Your task to perform on an android device: turn pop-ups on in chrome Image 0: 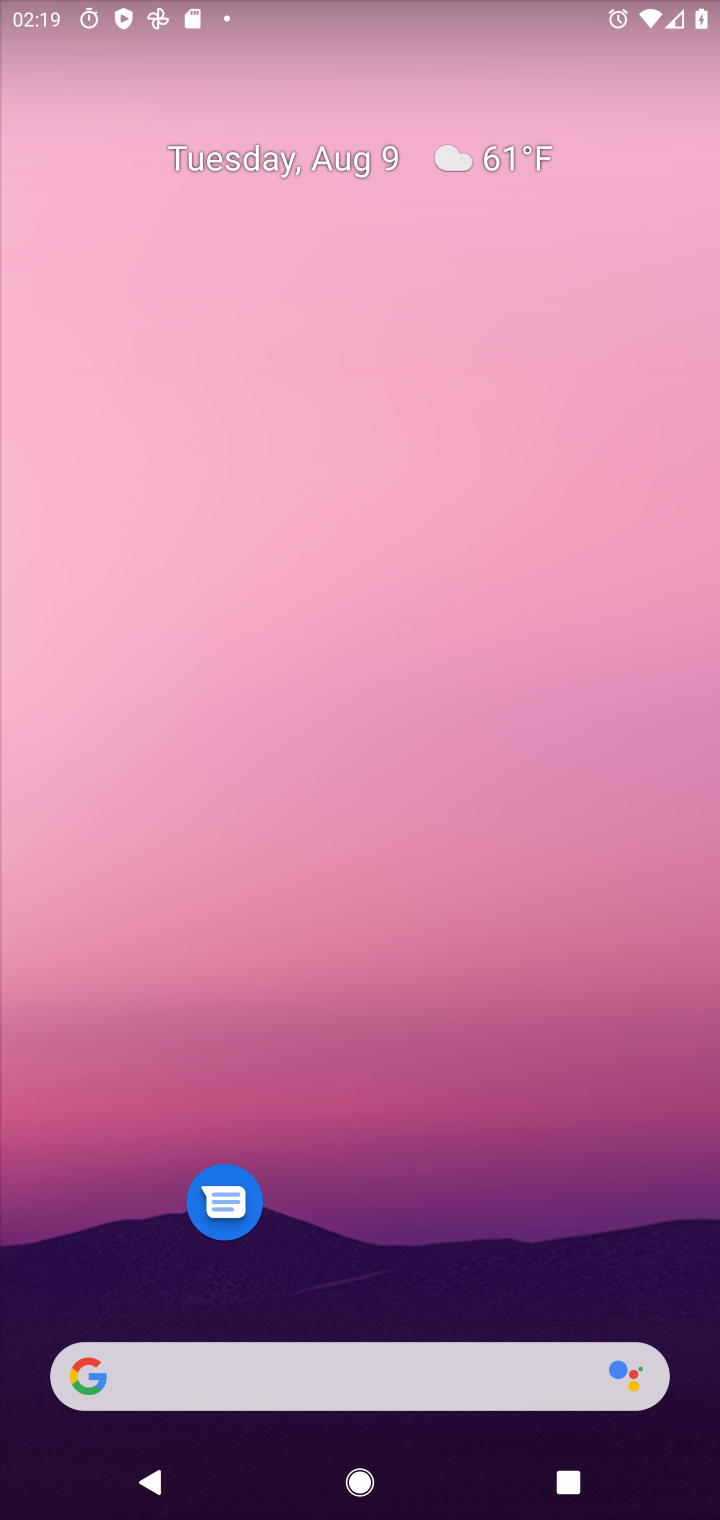
Step 0: drag from (306, 946) to (314, 109)
Your task to perform on an android device: turn pop-ups on in chrome Image 1: 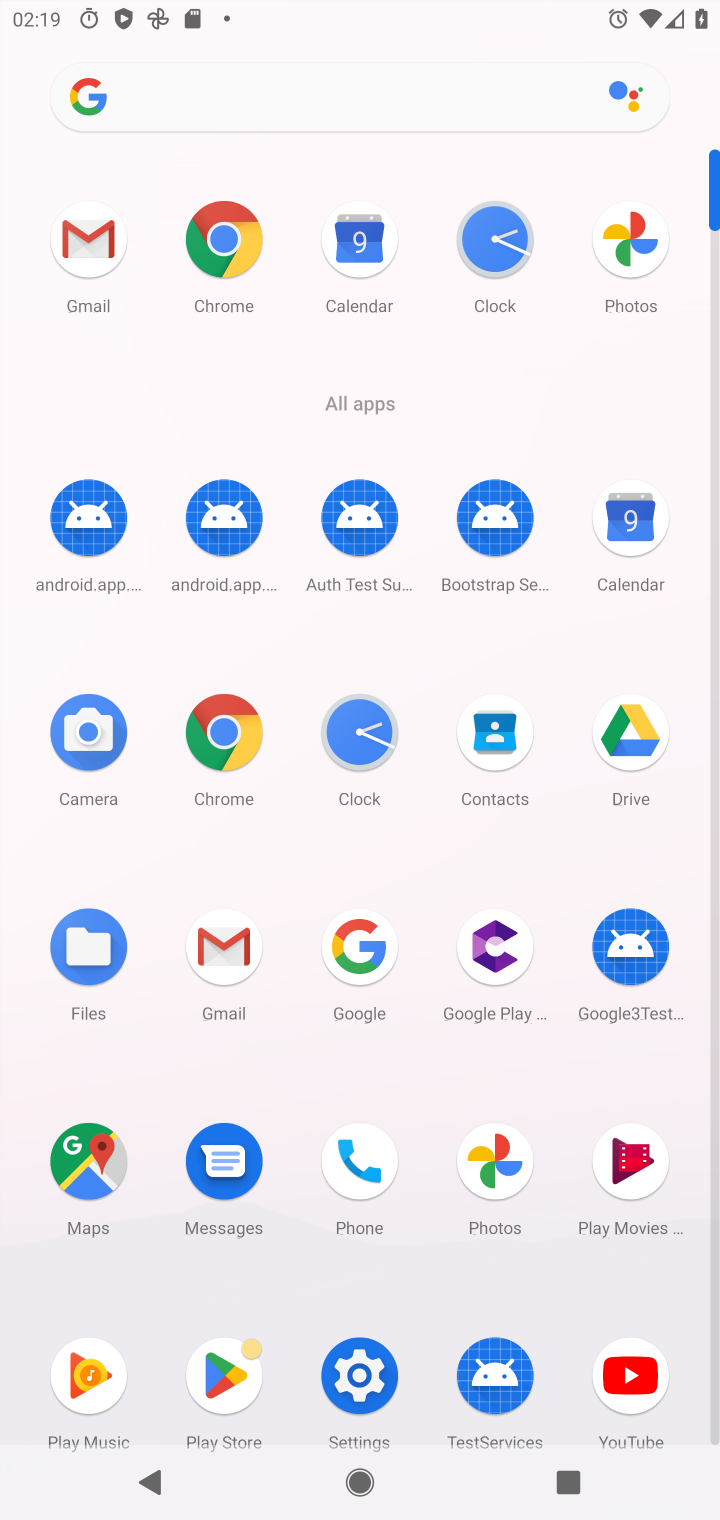
Step 1: click (215, 719)
Your task to perform on an android device: turn pop-ups on in chrome Image 2: 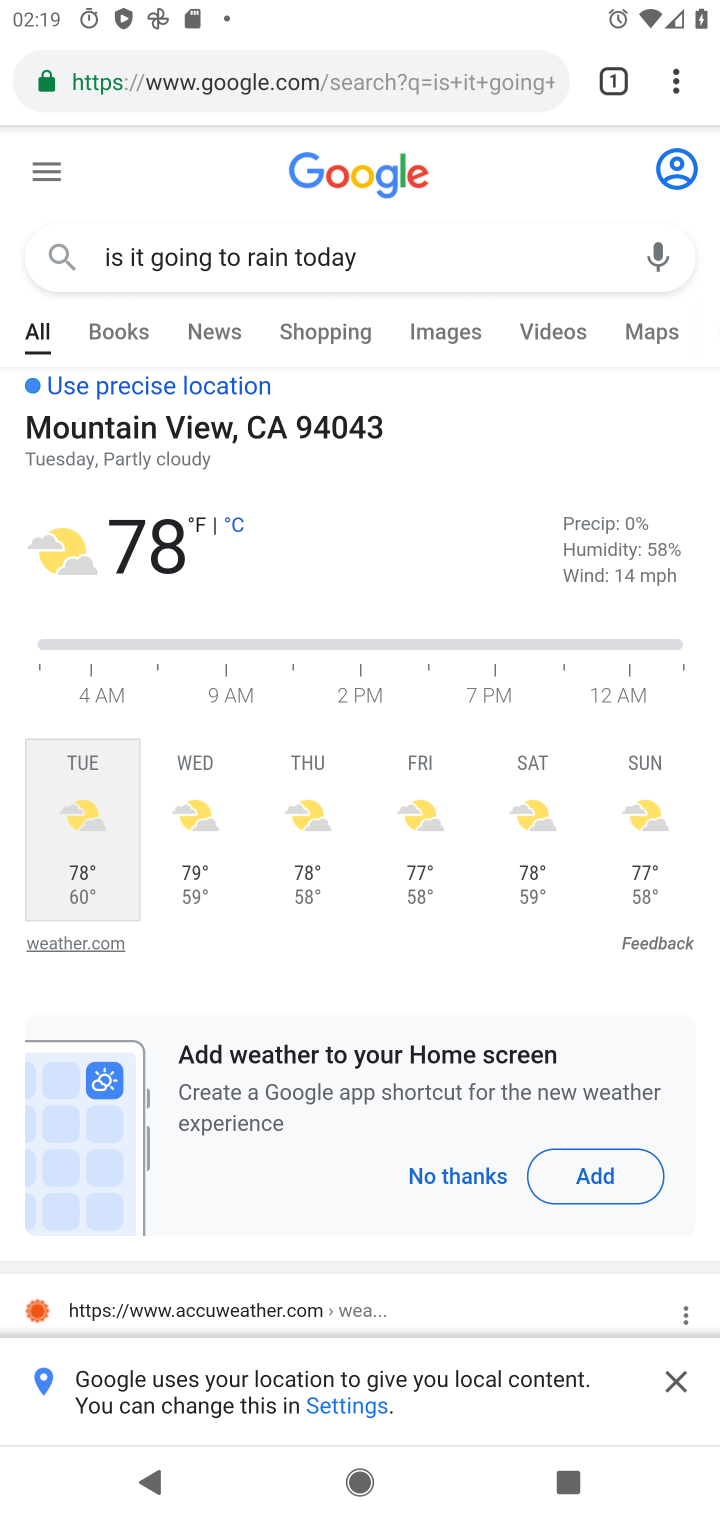
Step 2: click (678, 83)
Your task to perform on an android device: turn pop-ups on in chrome Image 3: 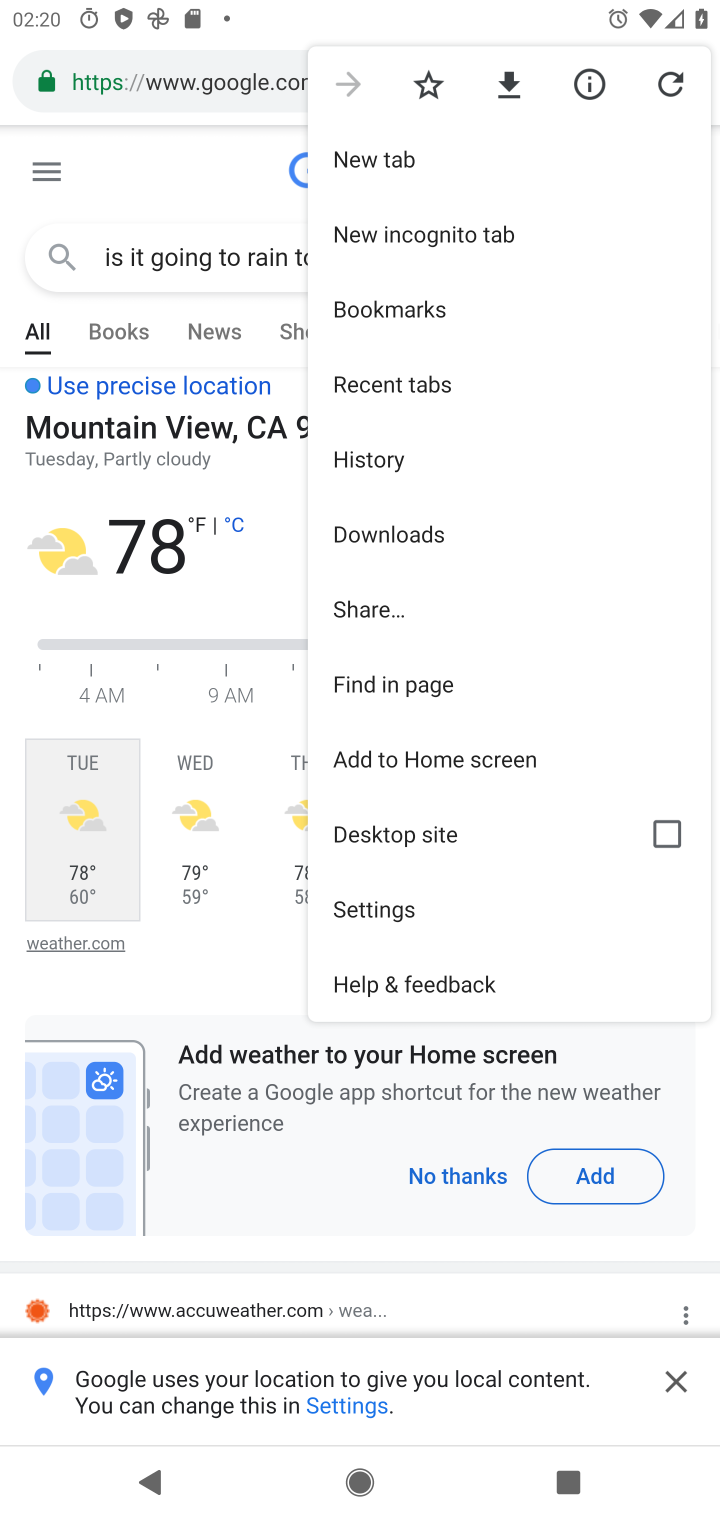
Step 3: click (350, 913)
Your task to perform on an android device: turn pop-ups on in chrome Image 4: 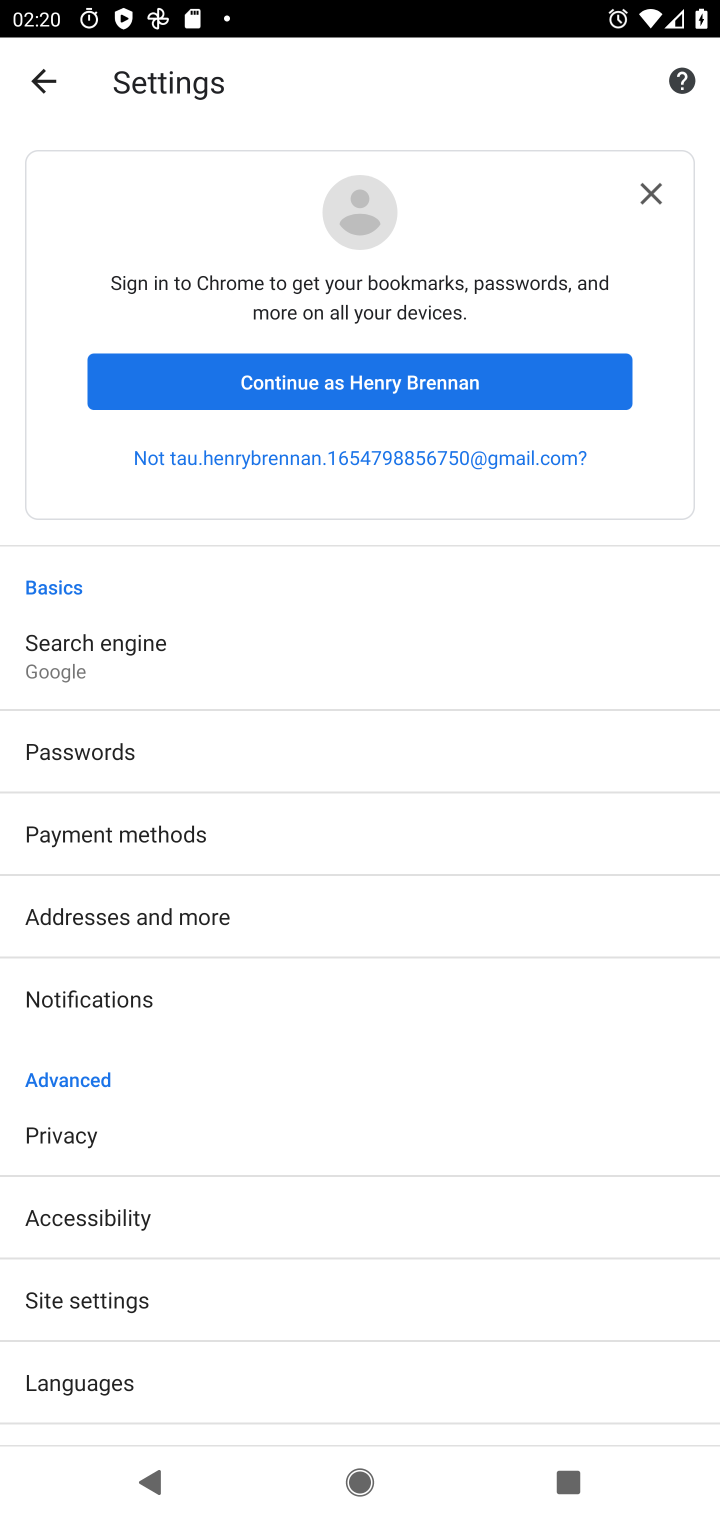
Step 4: click (107, 1308)
Your task to perform on an android device: turn pop-ups on in chrome Image 5: 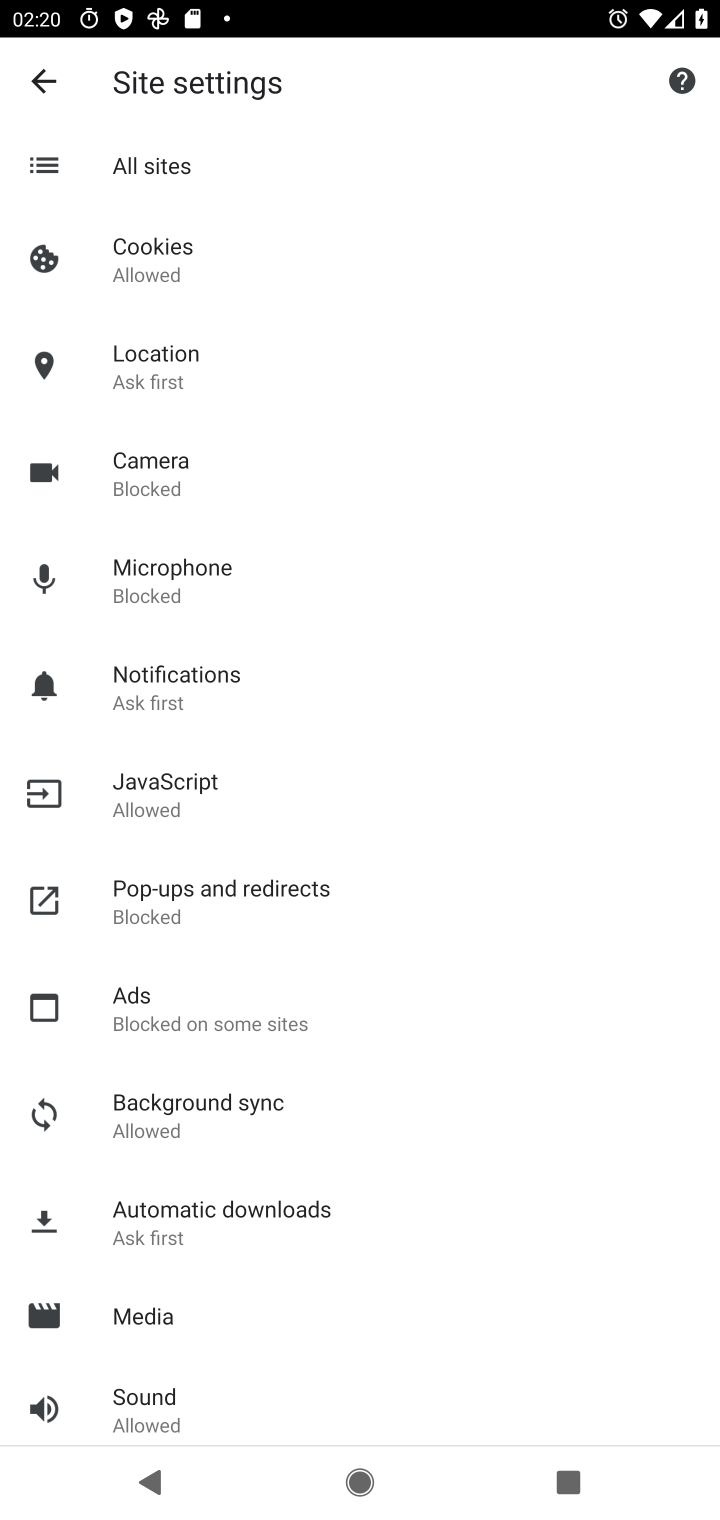
Step 5: click (187, 884)
Your task to perform on an android device: turn pop-ups on in chrome Image 6: 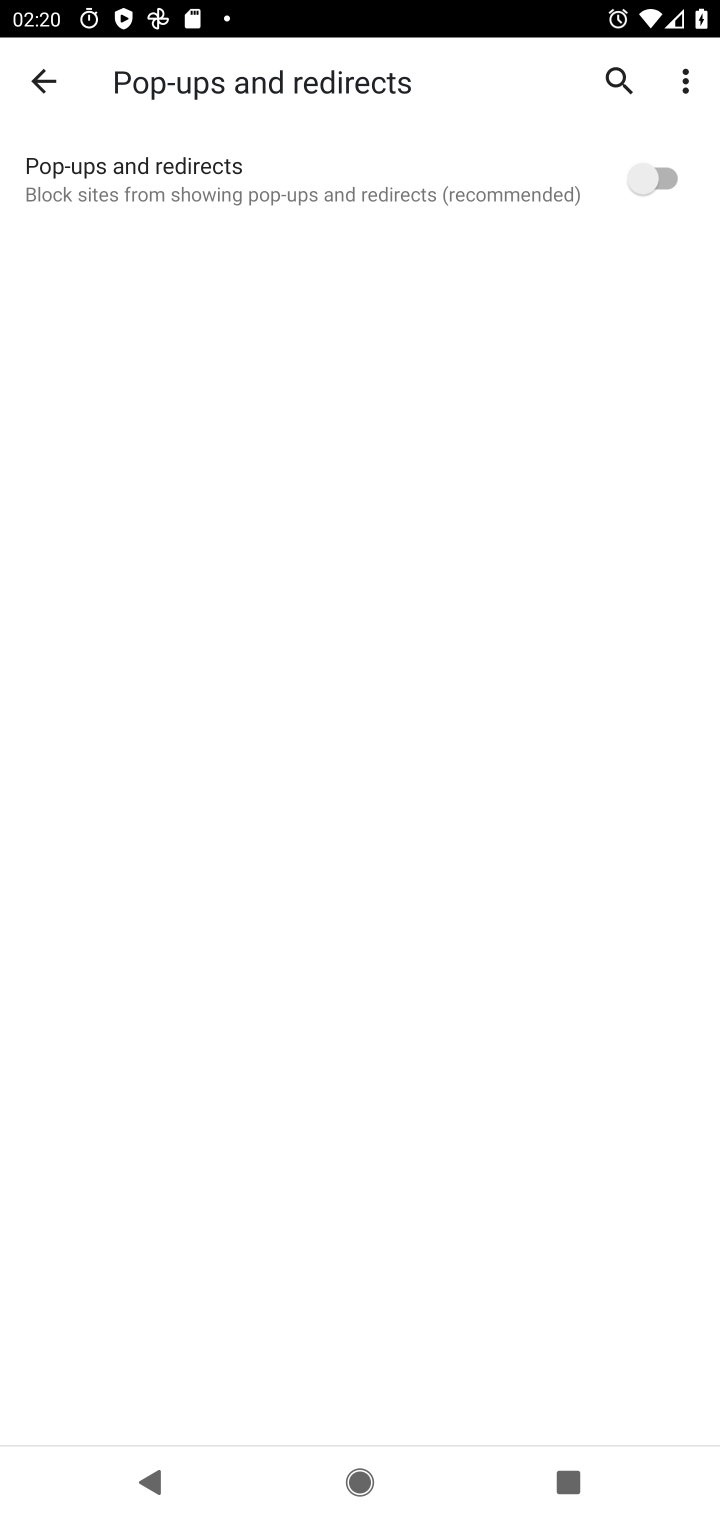
Step 6: click (668, 168)
Your task to perform on an android device: turn pop-ups on in chrome Image 7: 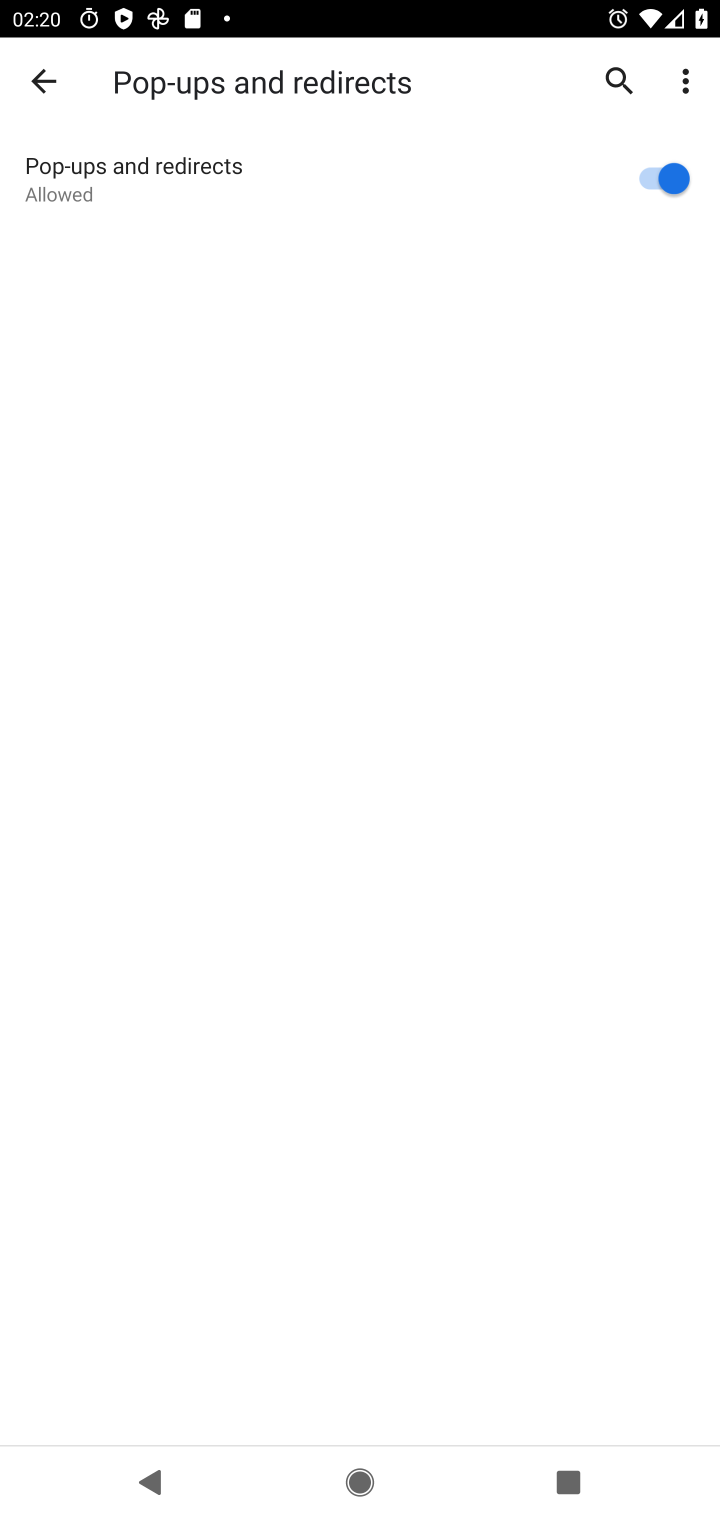
Step 7: task complete